Your task to perform on an android device: What's the weather? Image 0: 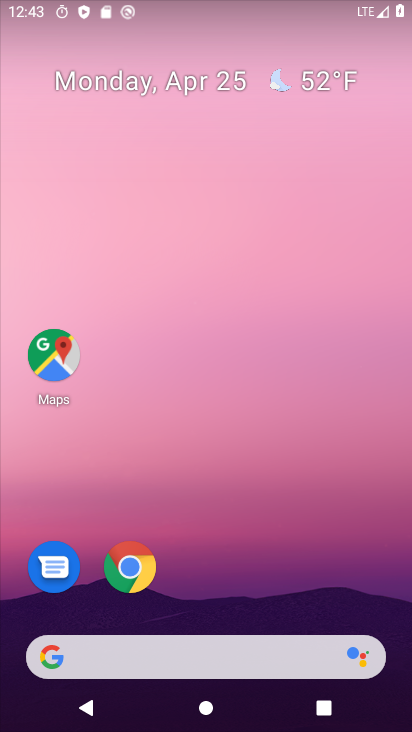
Step 0: click (279, 77)
Your task to perform on an android device: What's the weather? Image 1: 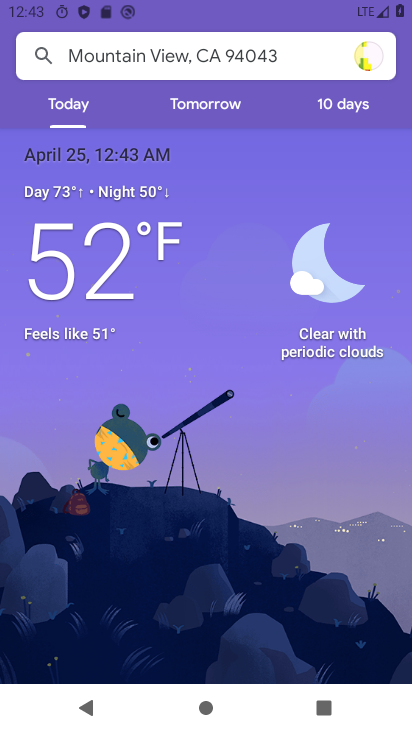
Step 1: task complete